Your task to perform on an android device: move an email to a new category in the gmail app Image 0: 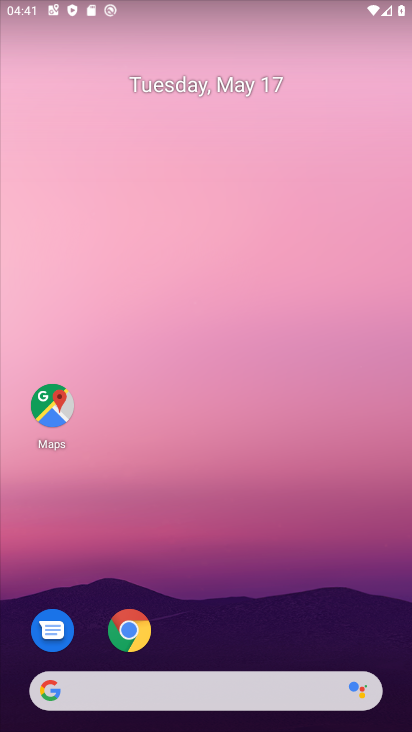
Step 0: drag from (283, 621) to (309, 121)
Your task to perform on an android device: move an email to a new category in the gmail app Image 1: 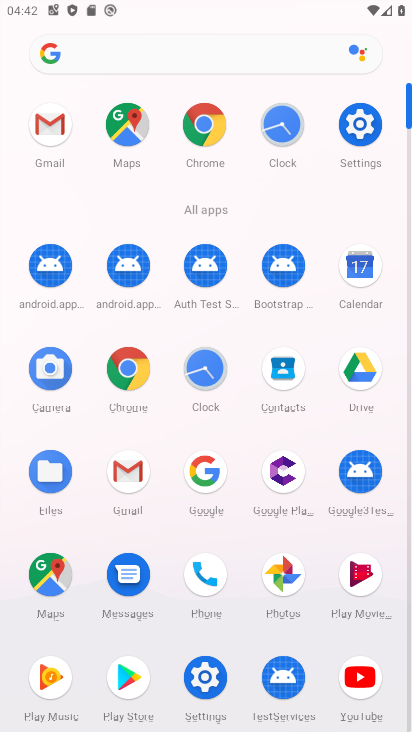
Step 1: click (126, 466)
Your task to perform on an android device: move an email to a new category in the gmail app Image 2: 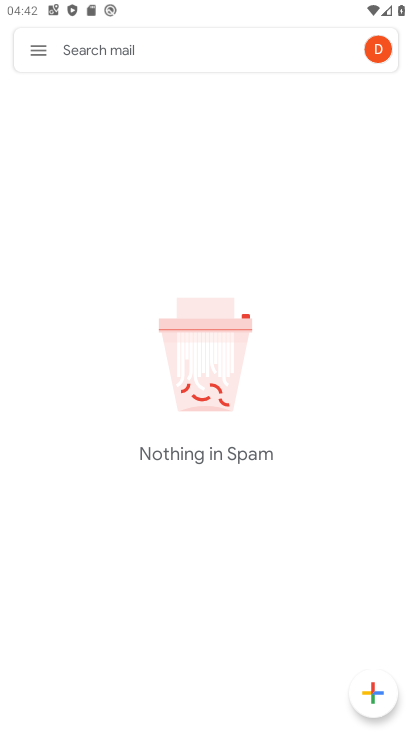
Step 2: click (32, 49)
Your task to perform on an android device: move an email to a new category in the gmail app Image 3: 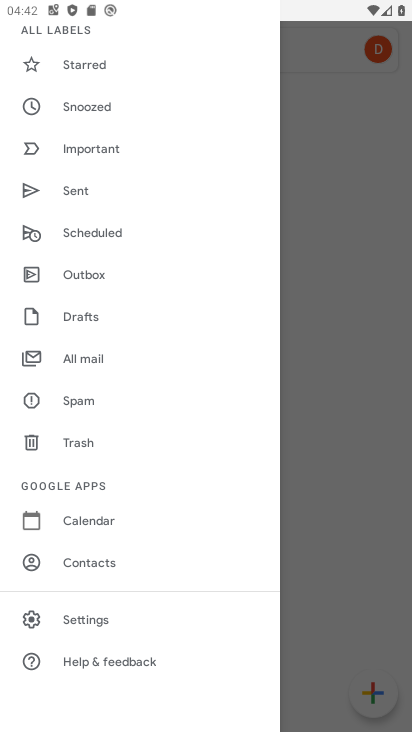
Step 3: click (80, 350)
Your task to perform on an android device: move an email to a new category in the gmail app Image 4: 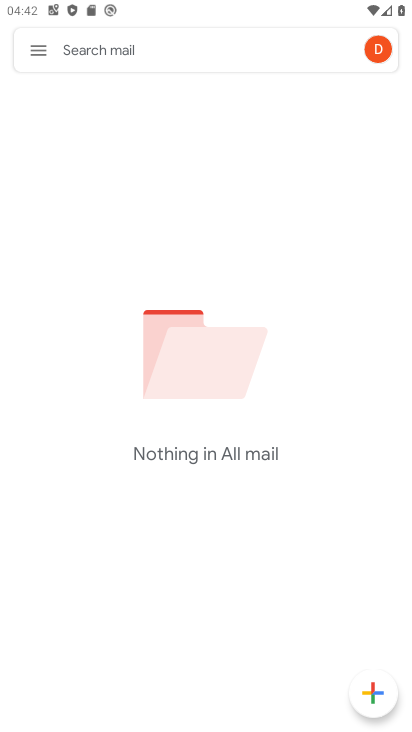
Step 4: task complete